Your task to perform on an android device: see creations saved in the google photos Image 0: 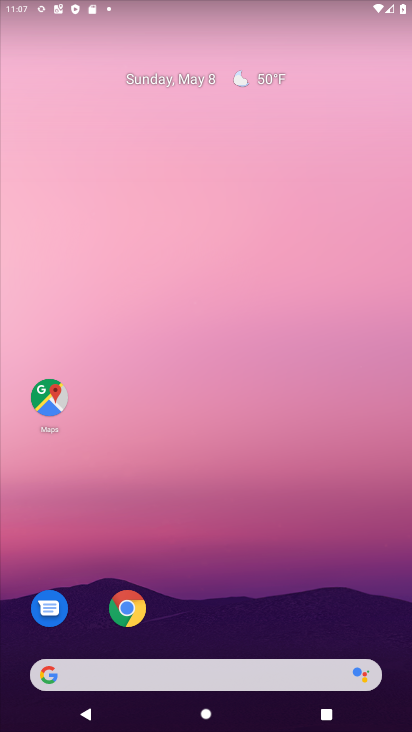
Step 0: drag from (251, 527) to (248, 113)
Your task to perform on an android device: see creations saved in the google photos Image 1: 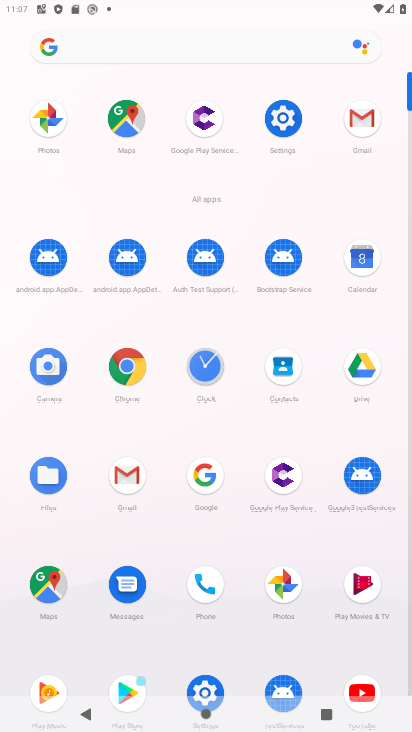
Step 1: click (49, 106)
Your task to perform on an android device: see creations saved in the google photos Image 2: 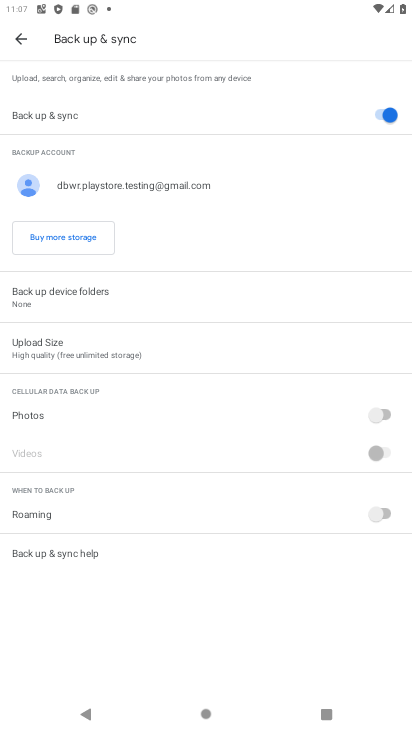
Step 2: click (23, 34)
Your task to perform on an android device: see creations saved in the google photos Image 3: 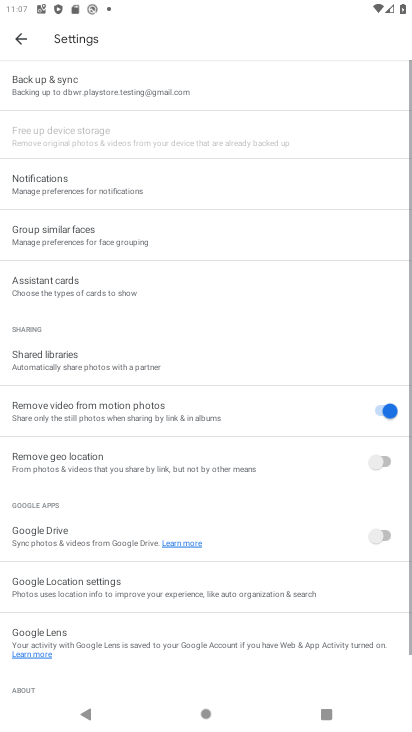
Step 3: click (22, 38)
Your task to perform on an android device: see creations saved in the google photos Image 4: 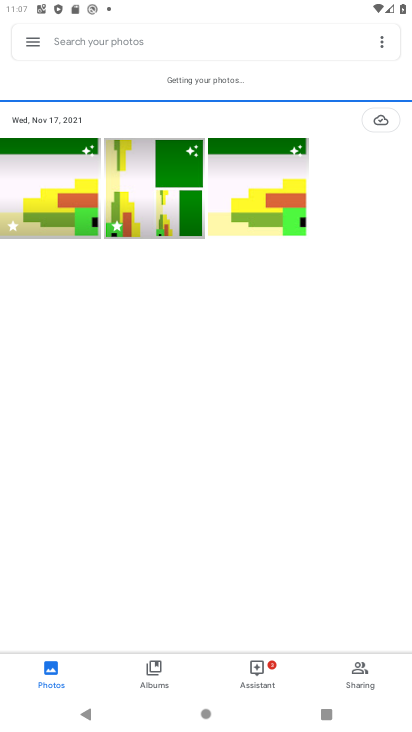
Step 4: click (148, 675)
Your task to perform on an android device: see creations saved in the google photos Image 5: 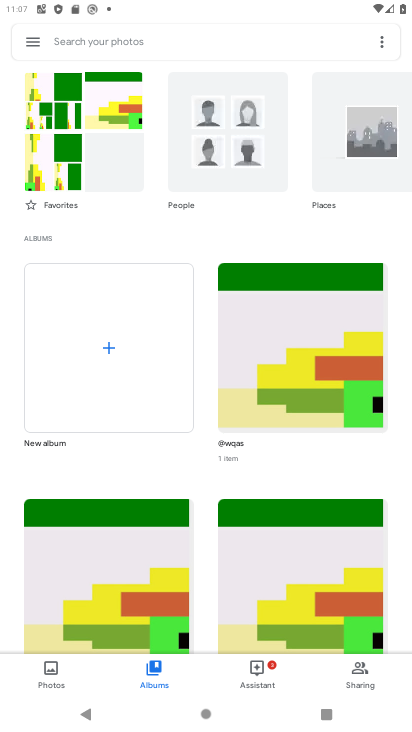
Step 5: task complete